Your task to perform on an android device: turn on the 24-hour format for clock Image 0: 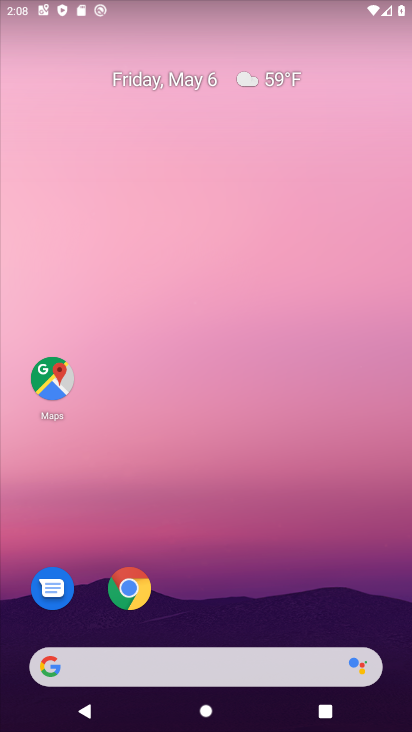
Step 0: drag from (199, 629) to (219, 209)
Your task to perform on an android device: turn on the 24-hour format for clock Image 1: 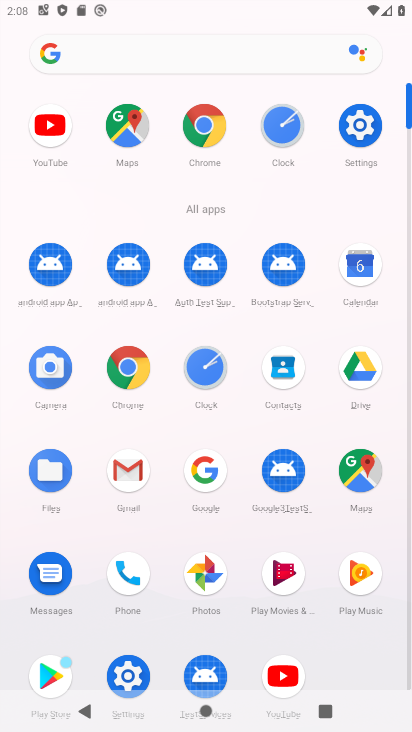
Step 1: click (287, 146)
Your task to perform on an android device: turn on the 24-hour format for clock Image 2: 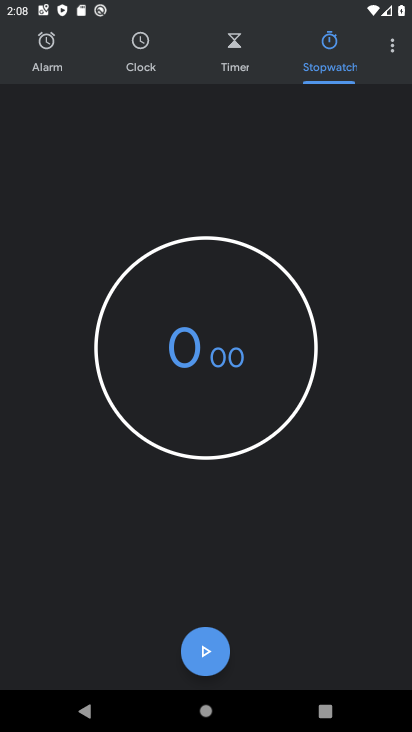
Step 2: click (387, 47)
Your task to perform on an android device: turn on the 24-hour format for clock Image 3: 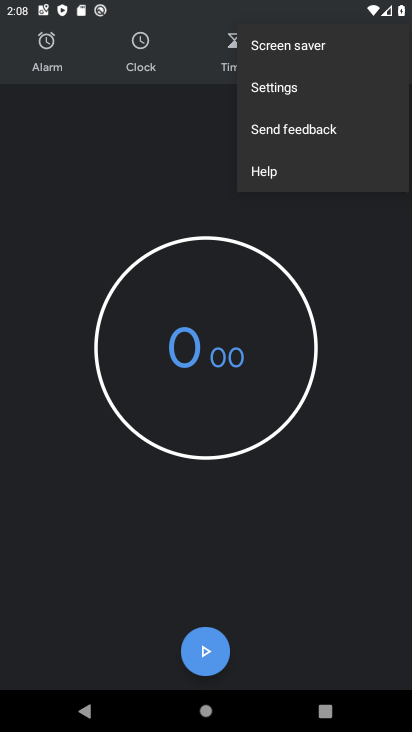
Step 3: click (286, 103)
Your task to perform on an android device: turn on the 24-hour format for clock Image 4: 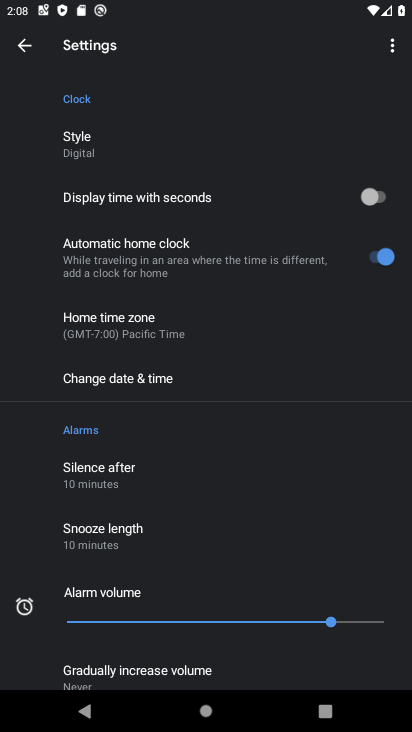
Step 4: drag from (158, 627) to (272, 267)
Your task to perform on an android device: turn on the 24-hour format for clock Image 5: 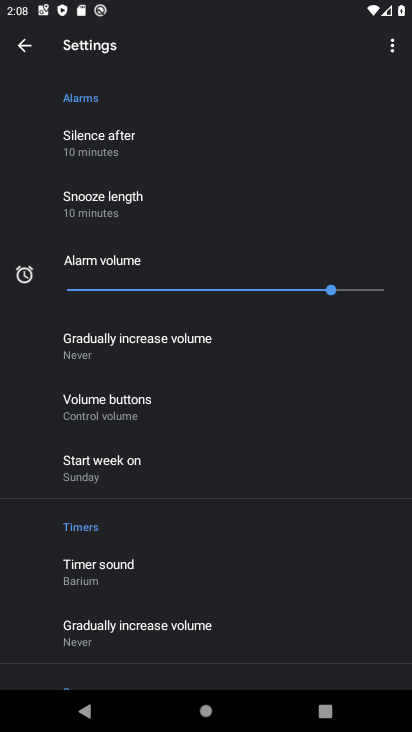
Step 5: drag from (111, 579) to (201, 89)
Your task to perform on an android device: turn on the 24-hour format for clock Image 6: 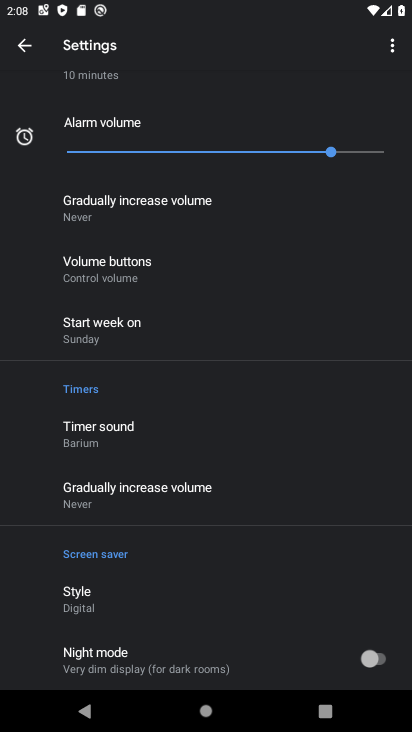
Step 6: drag from (153, 131) to (198, 587)
Your task to perform on an android device: turn on the 24-hour format for clock Image 7: 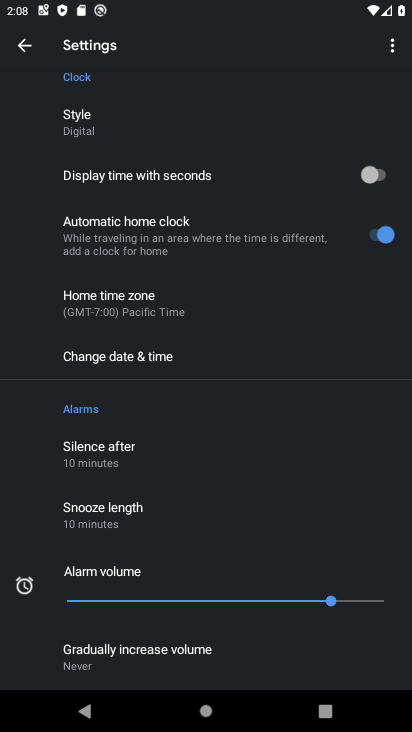
Step 7: click (125, 357)
Your task to perform on an android device: turn on the 24-hour format for clock Image 8: 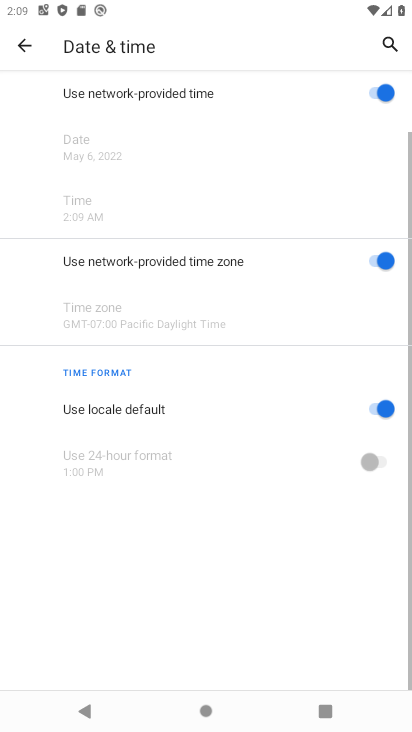
Step 8: click (374, 412)
Your task to perform on an android device: turn on the 24-hour format for clock Image 9: 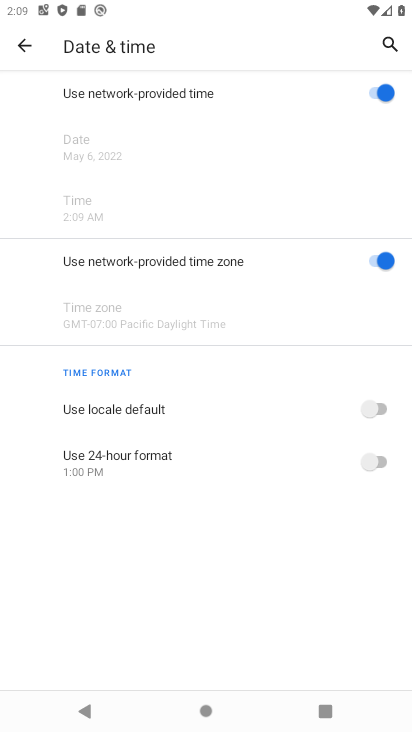
Step 9: click (384, 457)
Your task to perform on an android device: turn on the 24-hour format for clock Image 10: 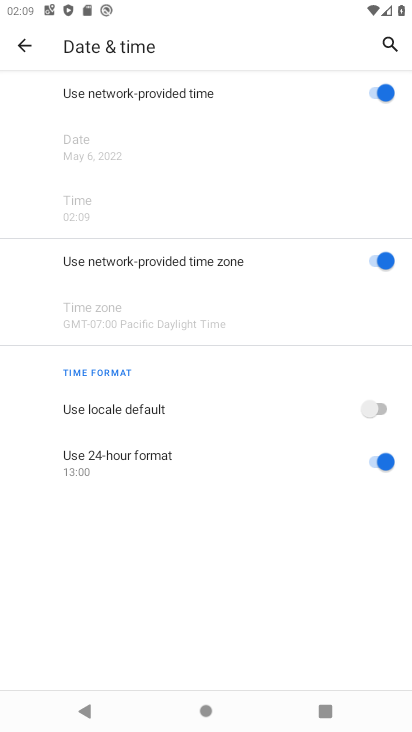
Step 10: task complete